Your task to perform on an android device: Search for "usb-c to usb-a" on bestbuy.com, select the first entry, and add it to the cart. Image 0: 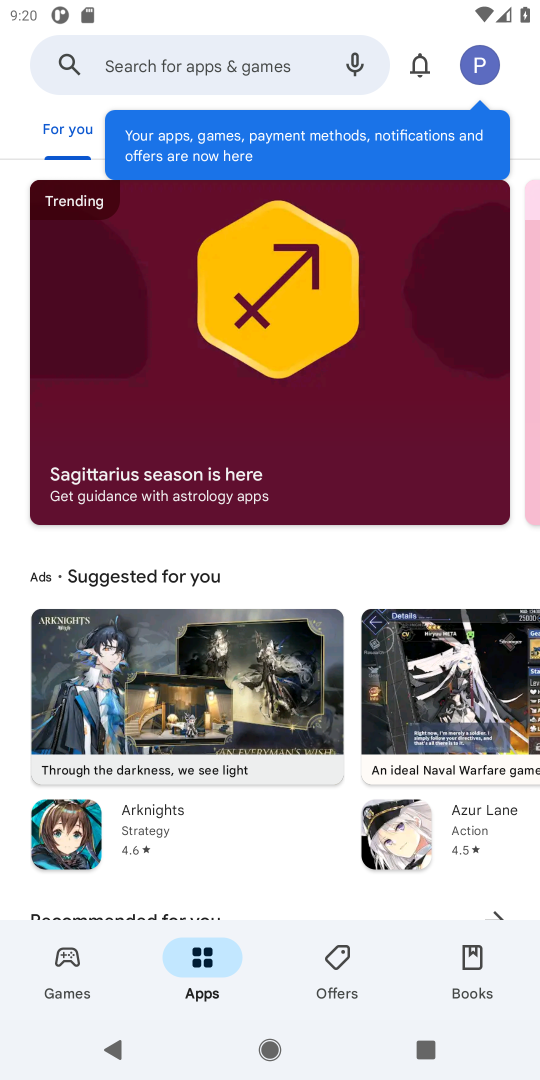
Step 0: press home button
Your task to perform on an android device: Search for "usb-c to usb-a" on bestbuy.com, select the first entry, and add it to the cart. Image 1: 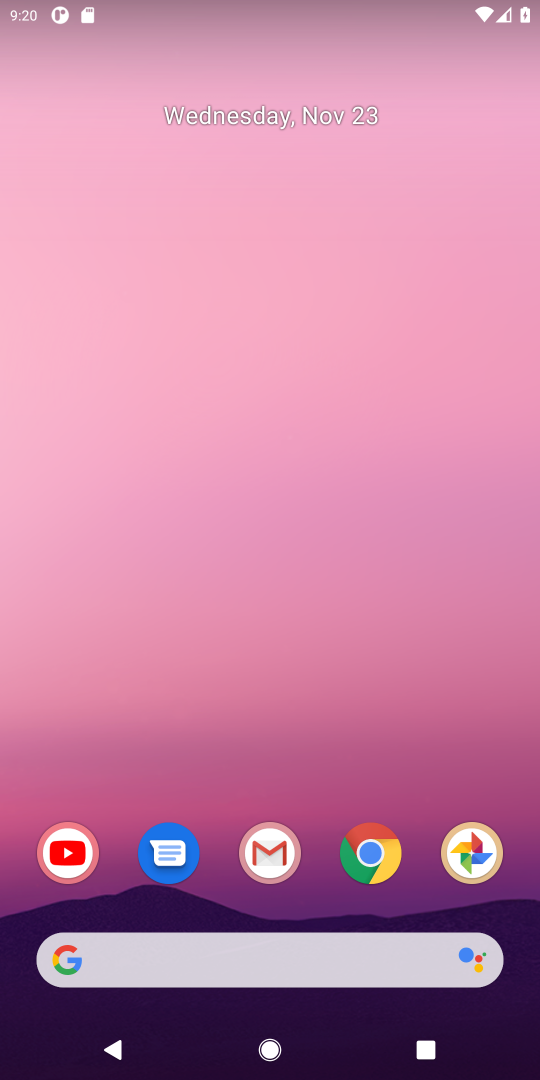
Step 1: click (377, 866)
Your task to perform on an android device: Search for "usb-c to usb-a" on bestbuy.com, select the first entry, and add it to the cart. Image 2: 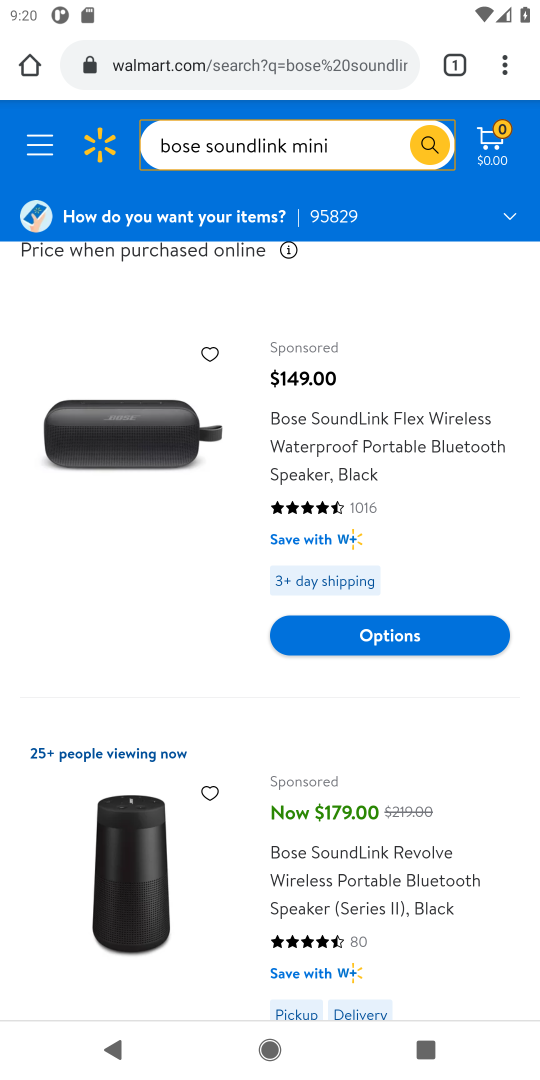
Step 2: click (194, 70)
Your task to perform on an android device: Search for "usb-c to usb-a" on bestbuy.com, select the first entry, and add it to the cart. Image 3: 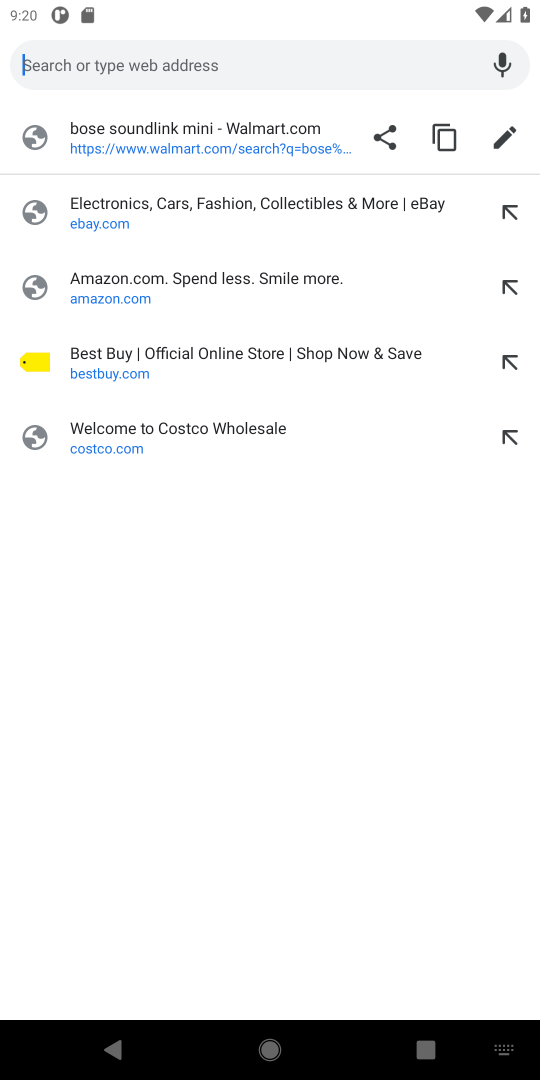
Step 3: click (91, 358)
Your task to perform on an android device: Search for "usb-c to usb-a" on bestbuy.com, select the first entry, and add it to the cart. Image 4: 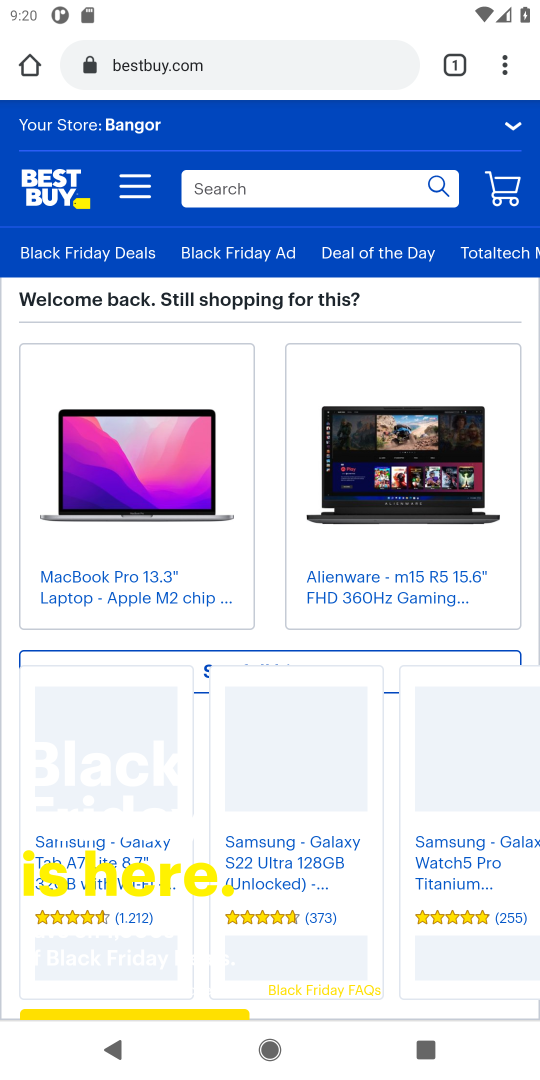
Step 4: click (232, 186)
Your task to perform on an android device: Search for "usb-c to usb-a" on bestbuy.com, select the first entry, and add it to the cart. Image 5: 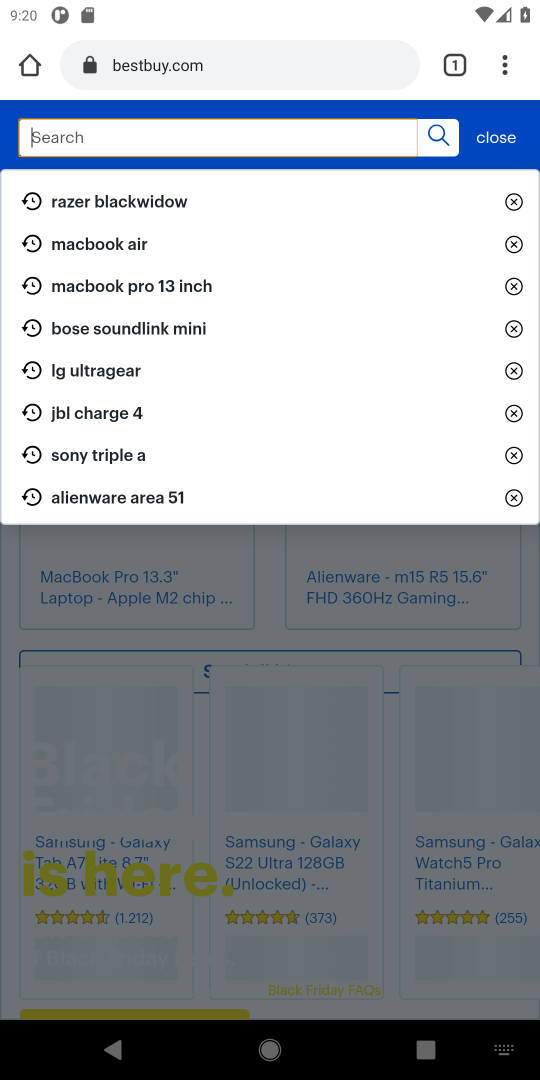
Step 5: type "usb-c to usb-a"
Your task to perform on an android device: Search for "usb-c to usb-a" on bestbuy.com, select the first entry, and add it to the cart. Image 6: 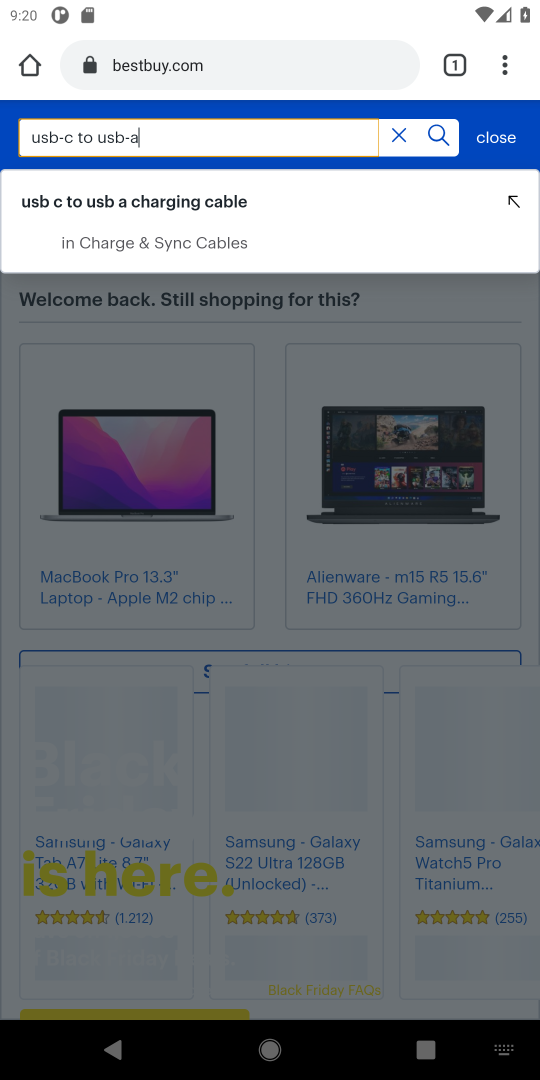
Step 6: click (177, 215)
Your task to perform on an android device: Search for "usb-c to usb-a" on bestbuy.com, select the first entry, and add it to the cart. Image 7: 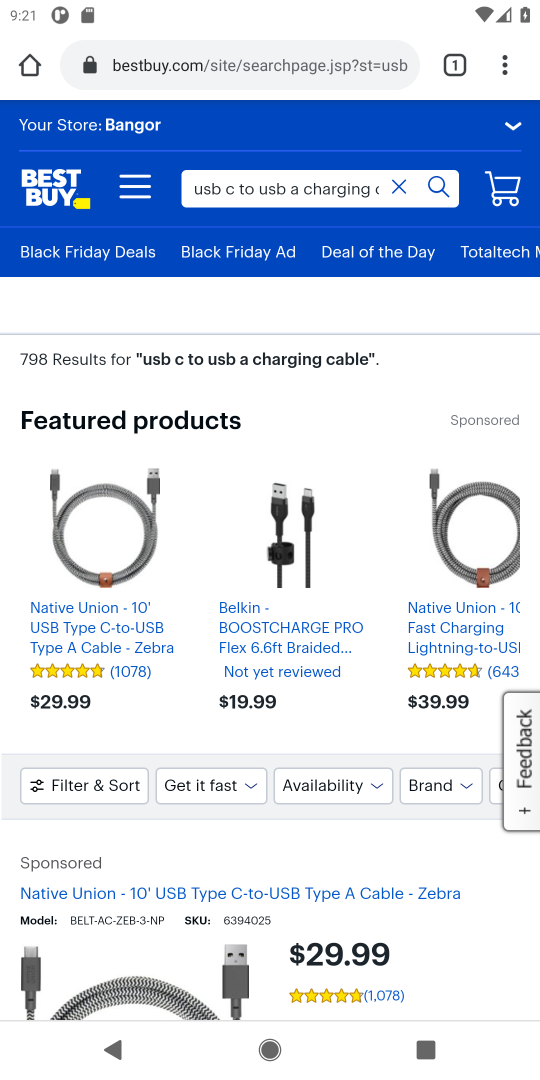
Step 7: drag from (172, 830) to (174, 570)
Your task to perform on an android device: Search for "usb-c to usb-a" on bestbuy.com, select the first entry, and add it to the cart. Image 8: 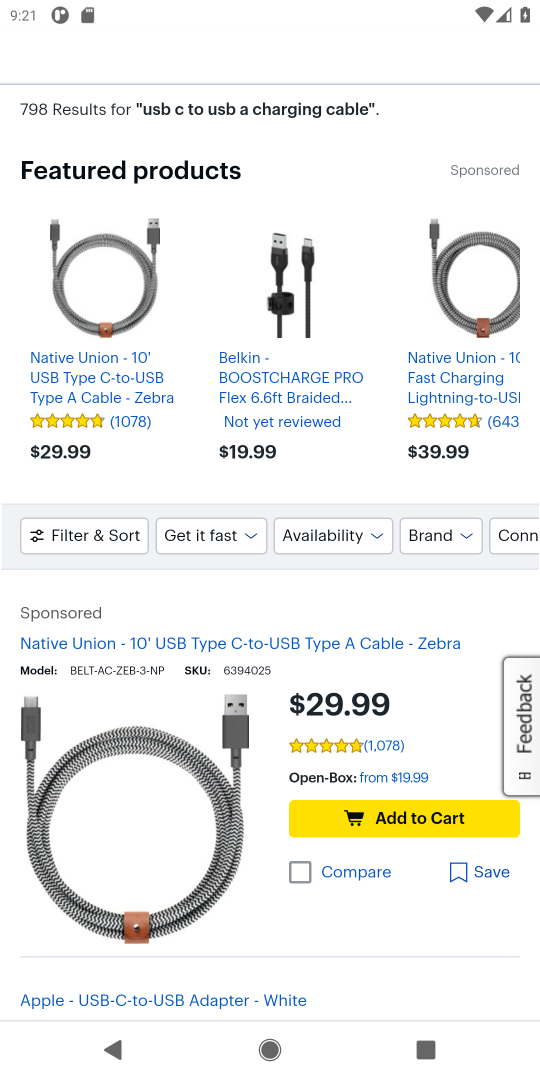
Step 8: click (388, 824)
Your task to perform on an android device: Search for "usb-c to usb-a" on bestbuy.com, select the first entry, and add it to the cart. Image 9: 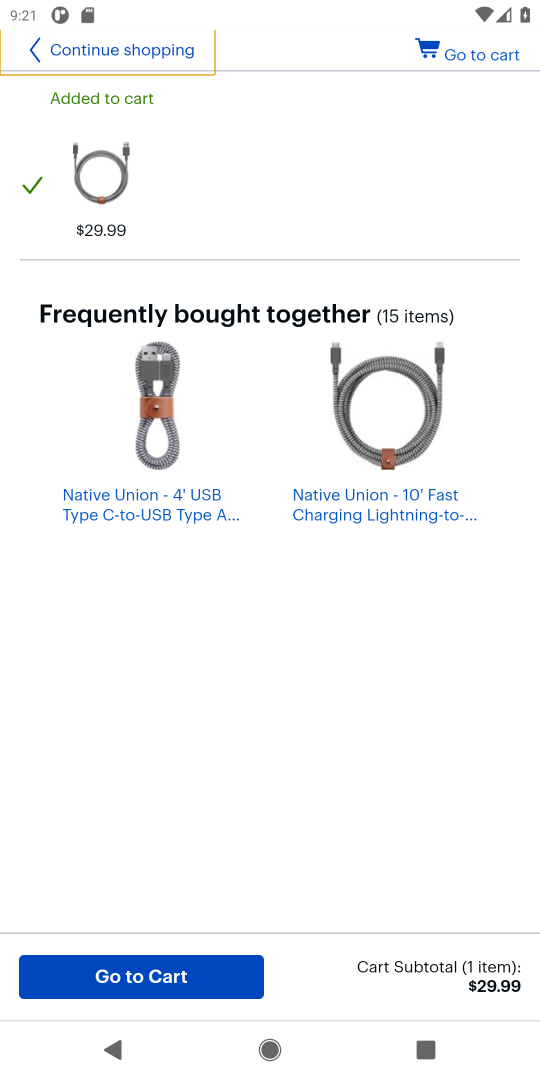
Step 9: task complete